Your task to perform on an android device: open app "Venmo" (install if not already installed) and enter user name: "bleedings@gmail.com" and password: "copied" Image 0: 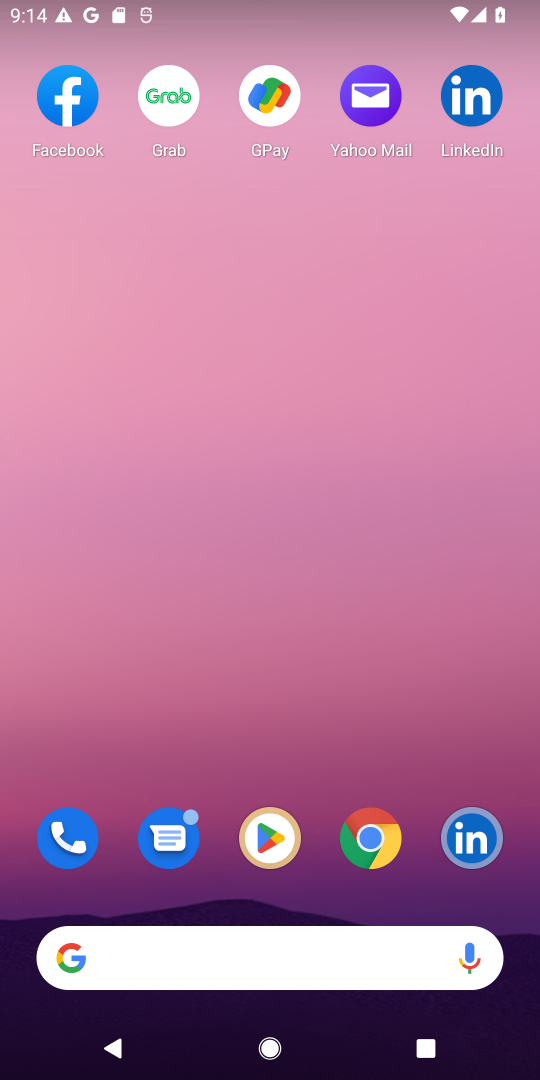
Step 0: click (282, 842)
Your task to perform on an android device: open app "Venmo" (install if not already installed) and enter user name: "bleedings@gmail.com" and password: "copied" Image 1: 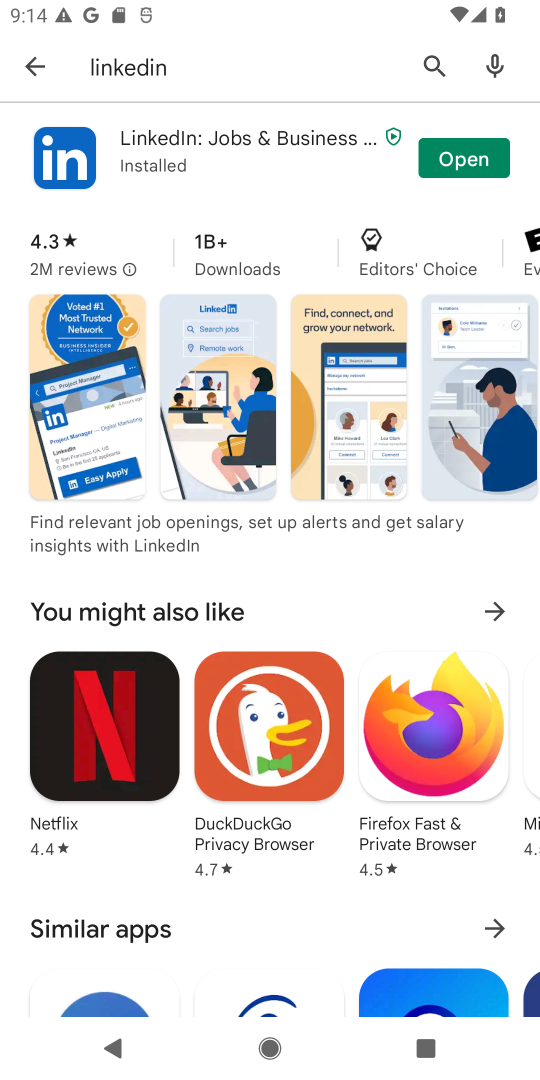
Step 1: click (427, 68)
Your task to perform on an android device: open app "Venmo" (install if not already installed) and enter user name: "bleedings@gmail.com" and password: "copied" Image 2: 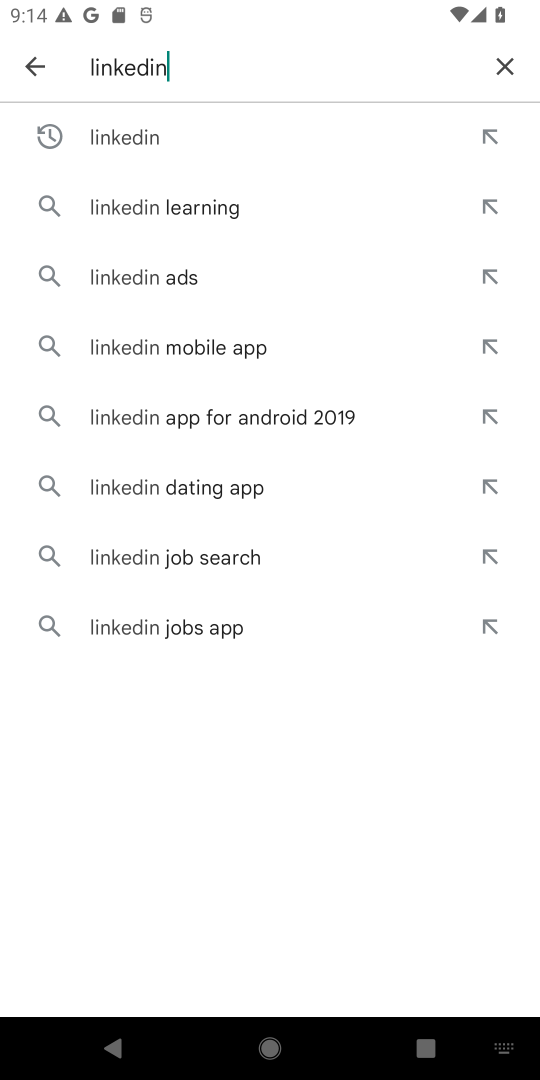
Step 2: click (506, 65)
Your task to perform on an android device: open app "Venmo" (install if not already installed) and enter user name: "bleedings@gmail.com" and password: "copied" Image 3: 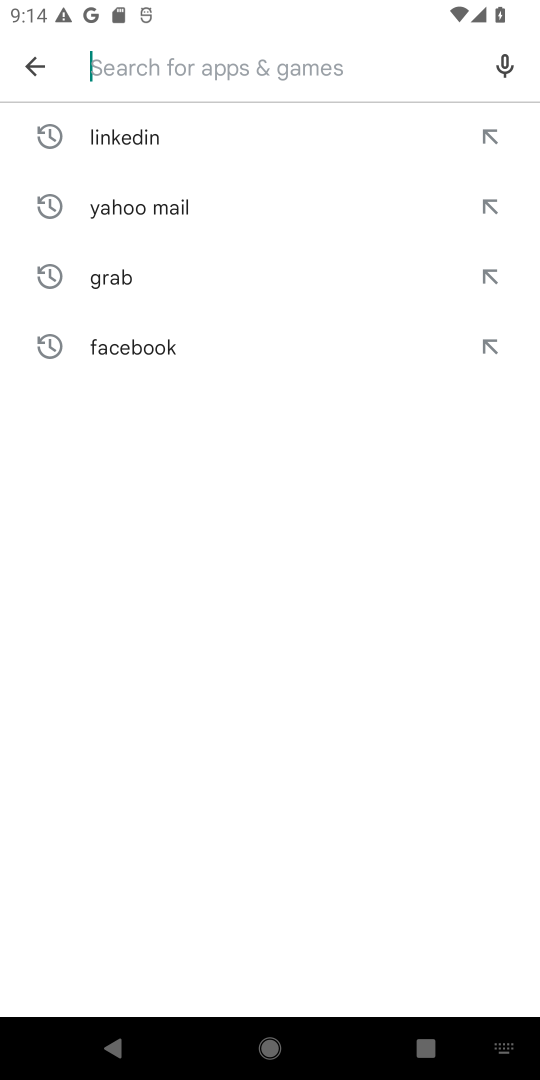
Step 3: type "Venmo"
Your task to perform on an android device: open app "Venmo" (install if not already installed) and enter user name: "bleedings@gmail.com" and password: "copied" Image 4: 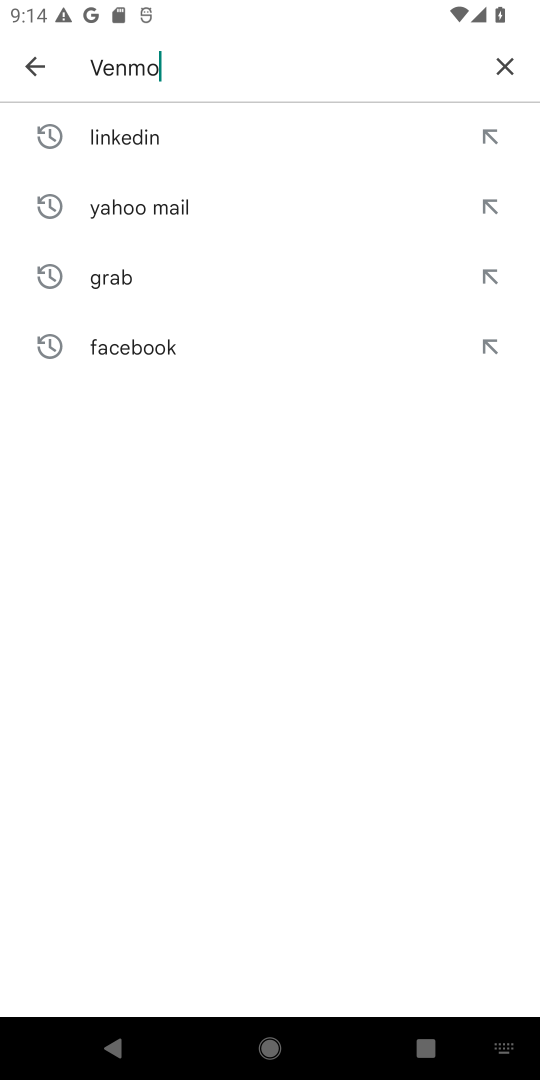
Step 4: type ""
Your task to perform on an android device: open app "Venmo" (install if not already installed) and enter user name: "bleedings@gmail.com" and password: "copied" Image 5: 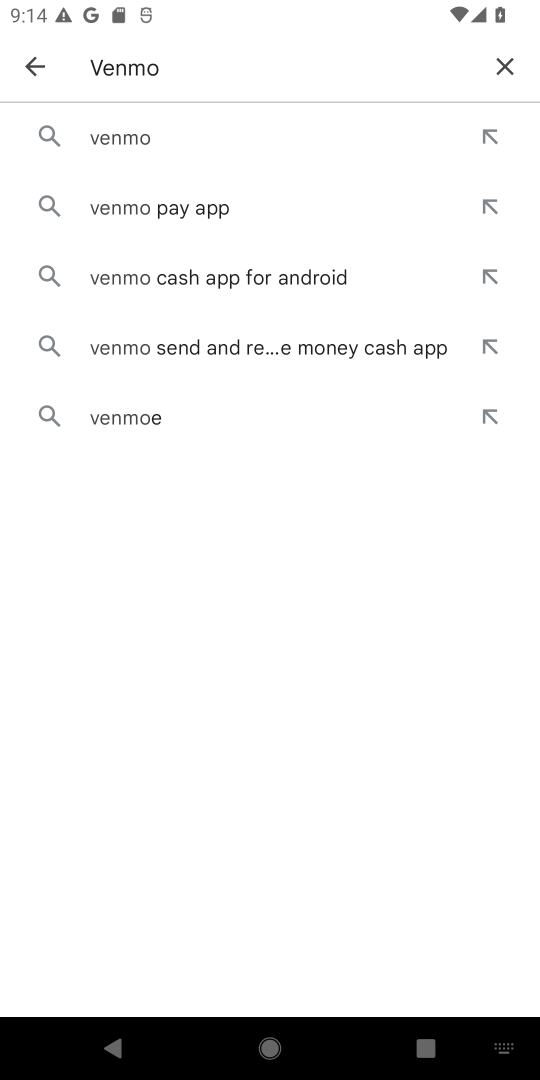
Step 5: click (222, 141)
Your task to perform on an android device: open app "Venmo" (install if not already installed) and enter user name: "bleedings@gmail.com" and password: "copied" Image 6: 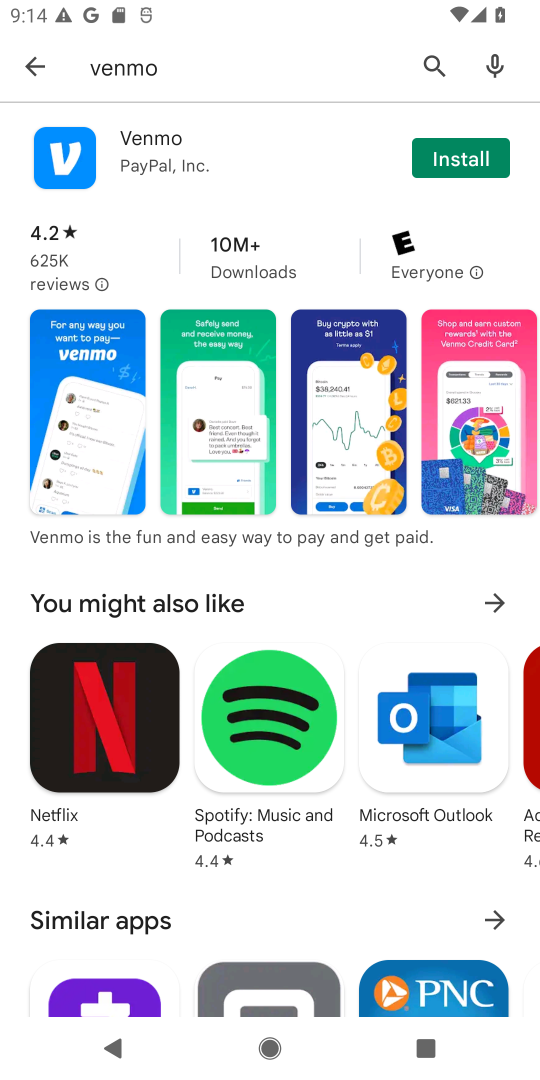
Step 6: click (463, 162)
Your task to perform on an android device: open app "Venmo" (install if not already installed) and enter user name: "bleedings@gmail.com" and password: "copied" Image 7: 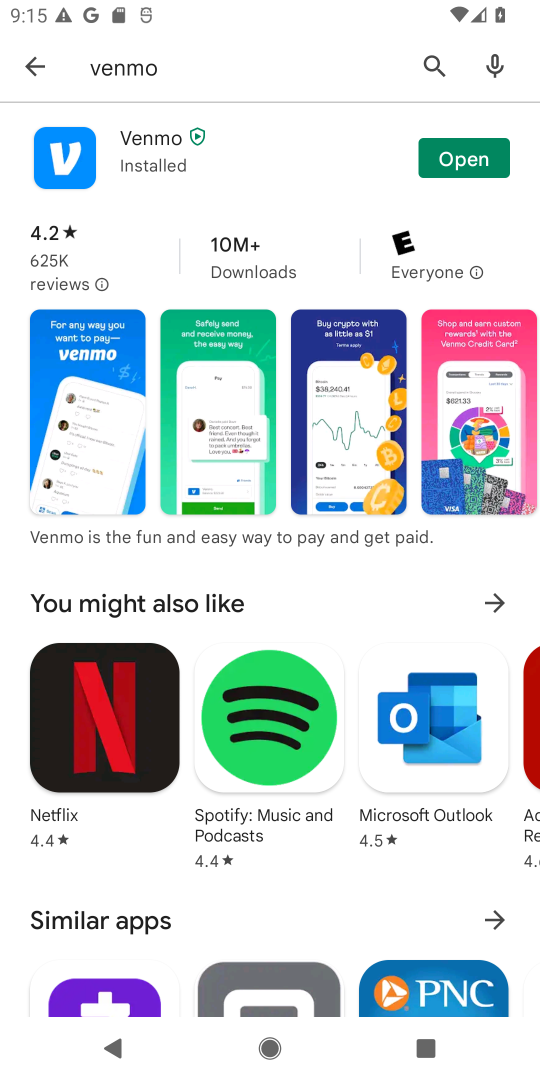
Step 7: click (472, 149)
Your task to perform on an android device: open app "Venmo" (install if not already installed) and enter user name: "bleedings@gmail.com" and password: "copied" Image 8: 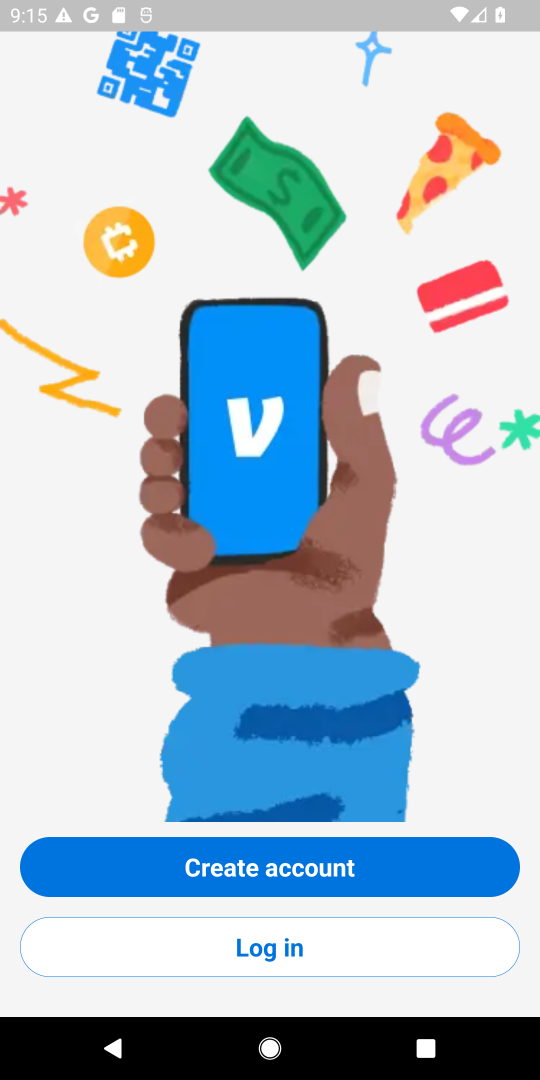
Step 8: task complete